Your task to perform on an android device: Open Google Chrome Image 0: 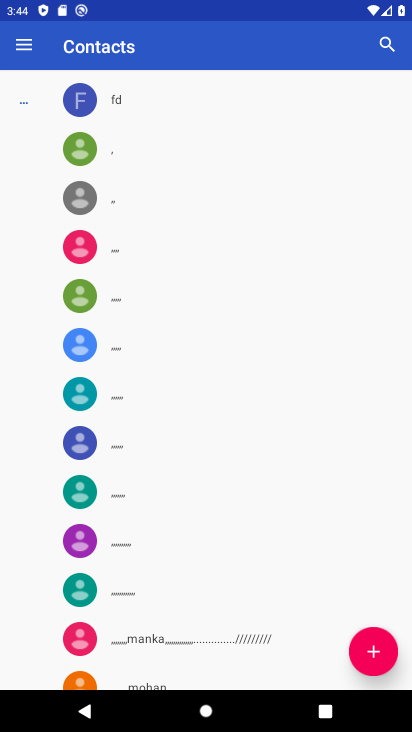
Step 0: press home button
Your task to perform on an android device: Open Google Chrome Image 1: 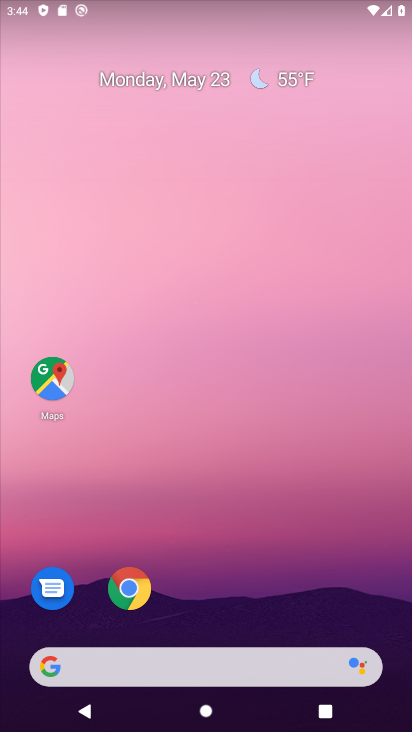
Step 1: click (136, 587)
Your task to perform on an android device: Open Google Chrome Image 2: 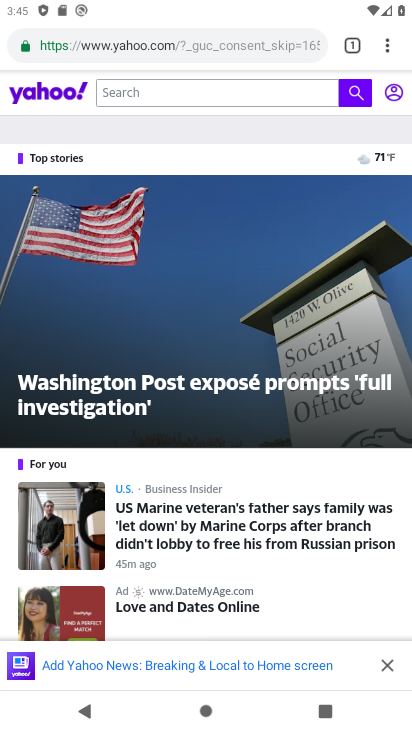
Step 2: task complete